Your task to perform on an android device: Search for razer blade on bestbuy.com, select the first entry, and add it to the cart. Image 0: 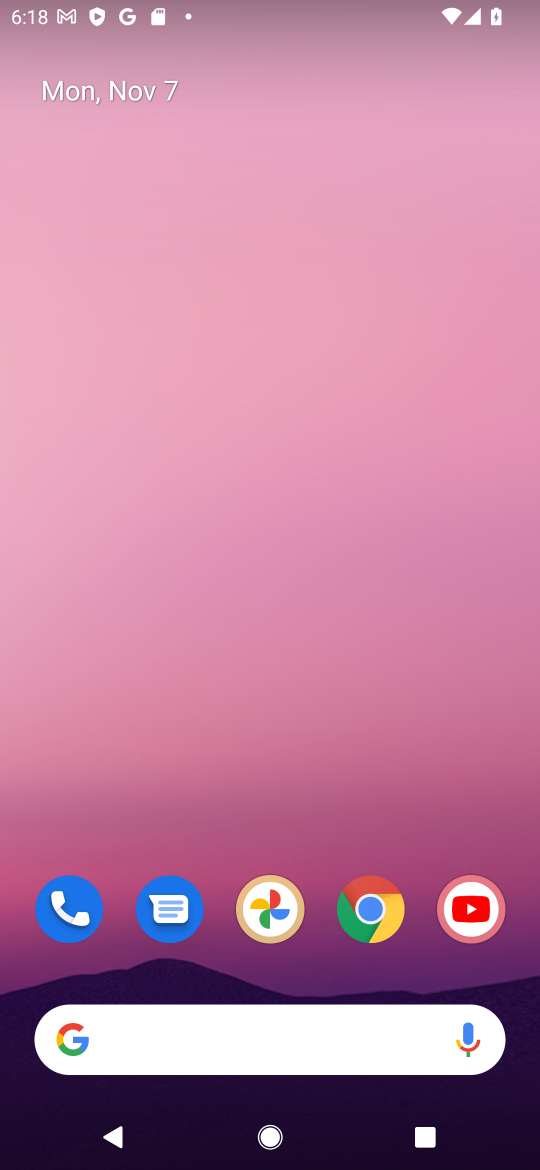
Step 0: click (361, 926)
Your task to perform on an android device: Search for razer blade on bestbuy.com, select the first entry, and add it to the cart. Image 1: 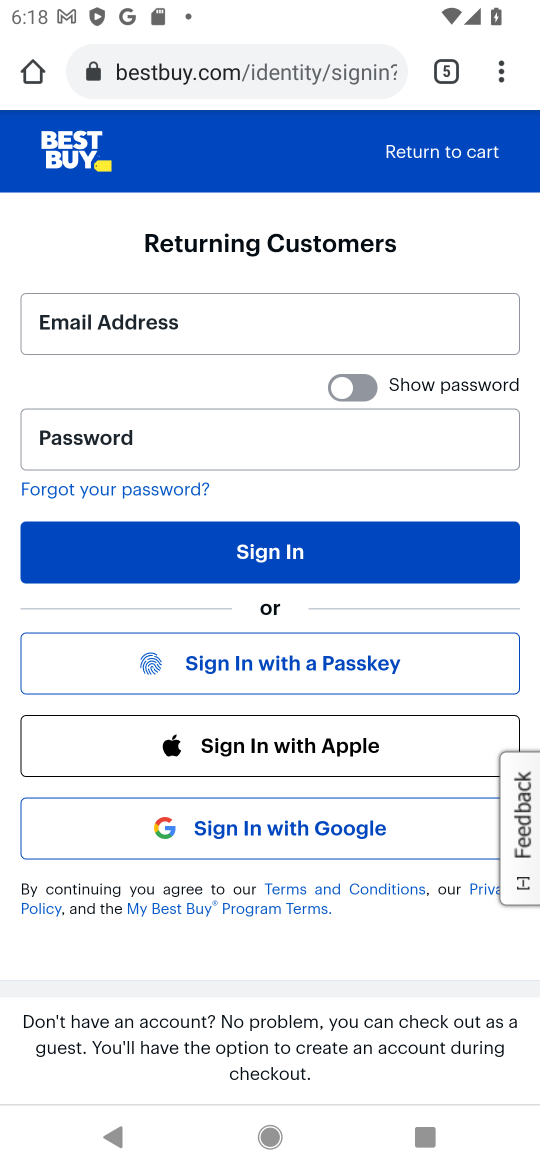
Step 1: click (446, 149)
Your task to perform on an android device: Search for razer blade on bestbuy.com, select the first entry, and add it to the cart. Image 2: 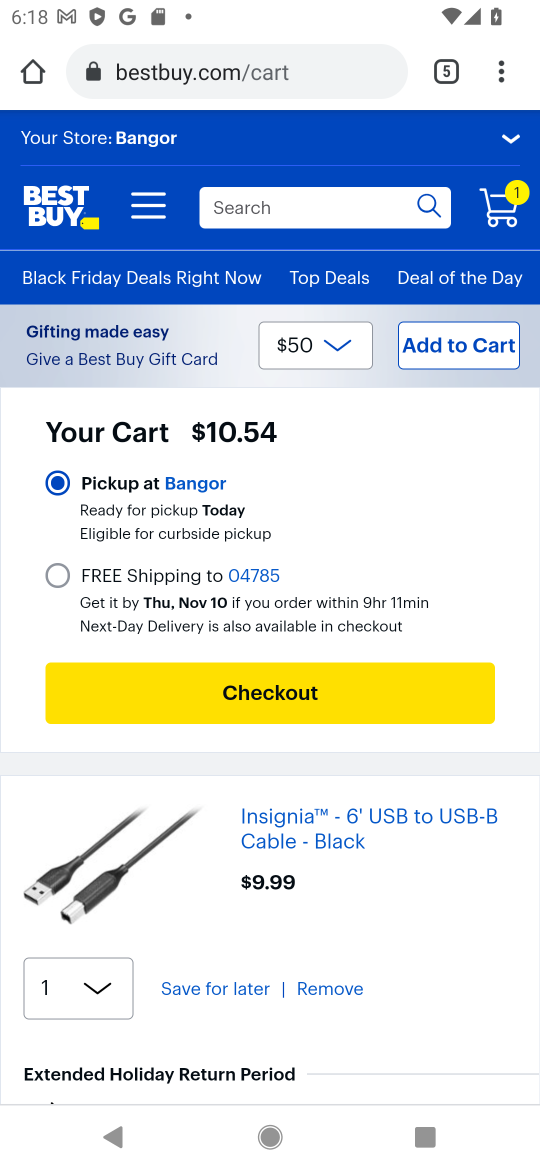
Step 2: click (294, 209)
Your task to perform on an android device: Search for razer blade on bestbuy.com, select the first entry, and add it to the cart. Image 3: 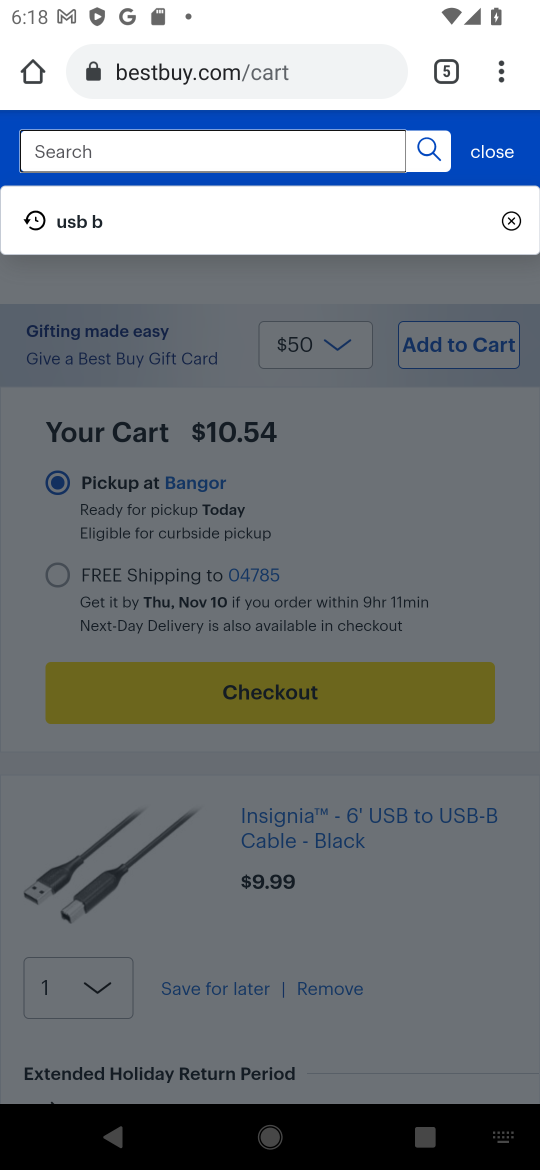
Step 3: type "razer blade"
Your task to perform on an android device: Search for razer blade on bestbuy.com, select the first entry, and add it to the cart. Image 4: 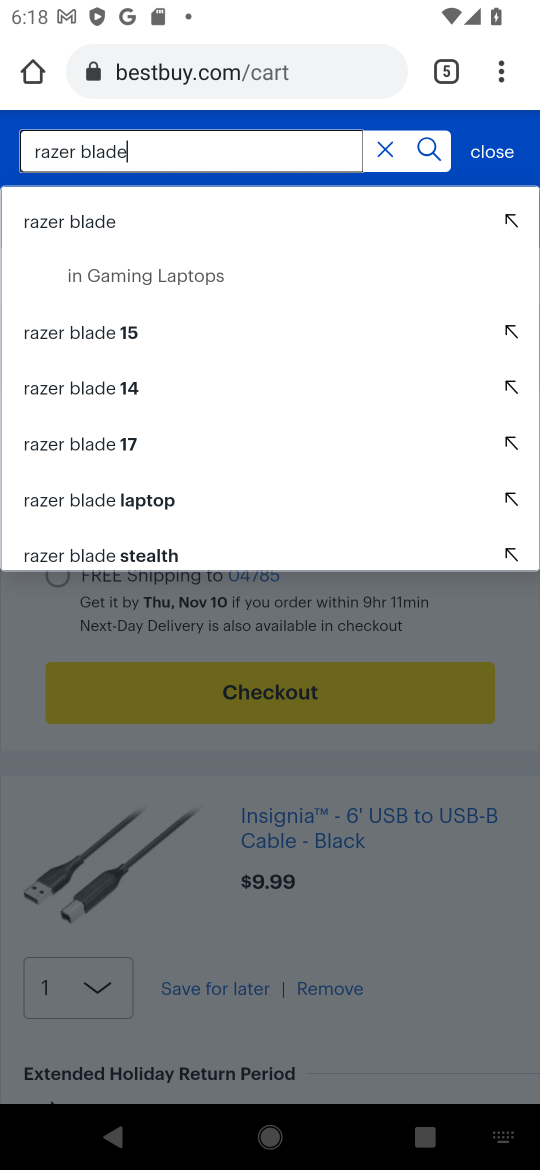
Step 4: click (33, 218)
Your task to perform on an android device: Search for razer blade on bestbuy.com, select the first entry, and add it to the cart. Image 5: 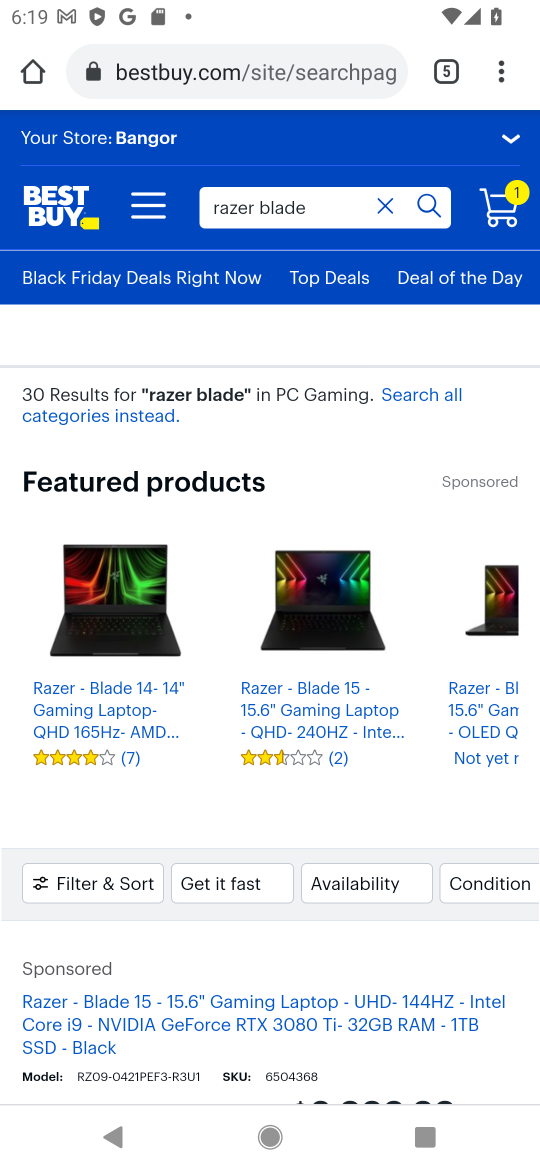
Step 5: drag from (291, 970) to (423, 279)
Your task to perform on an android device: Search for razer blade on bestbuy.com, select the first entry, and add it to the cart. Image 6: 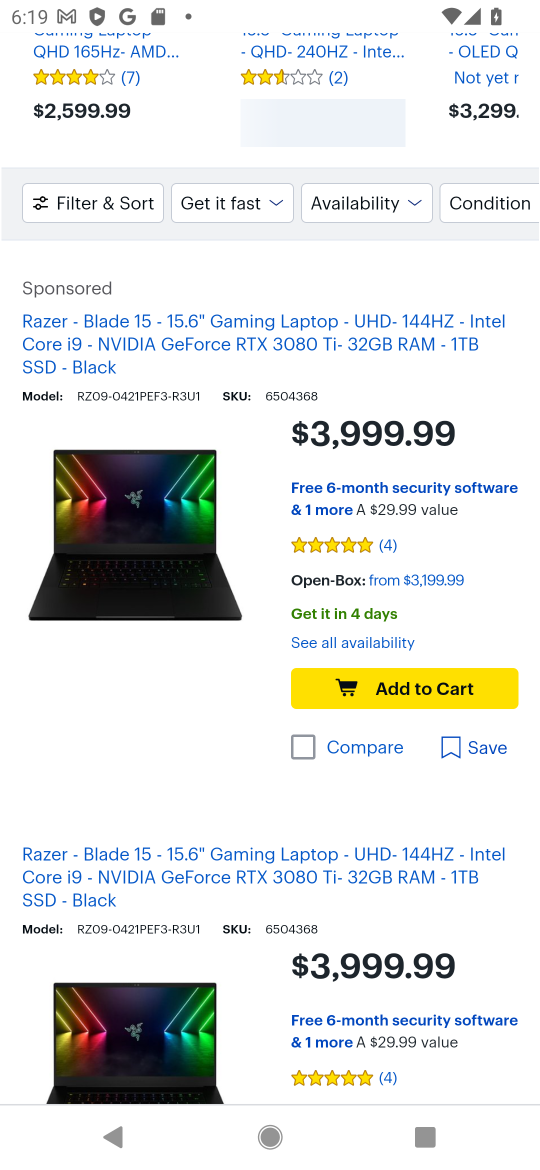
Step 6: click (404, 696)
Your task to perform on an android device: Search for razer blade on bestbuy.com, select the first entry, and add it to the cart. Image 7: 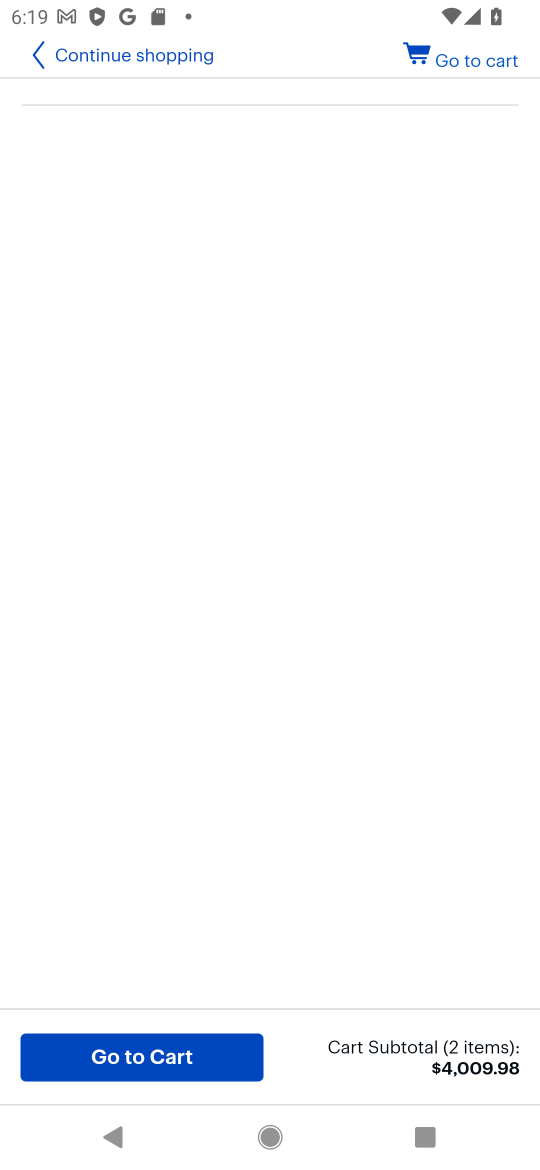
Step 7: task complete